Your task to perform on an android device: show emergency info Image 0: 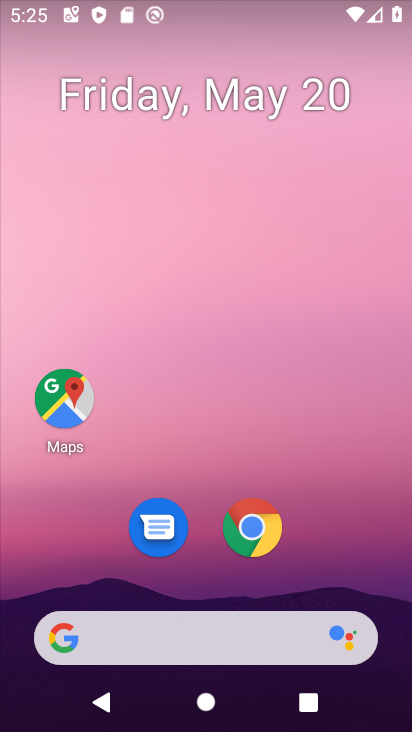
Step 0: drag from (341, 626) to (295, 70)
Your task to perform on an android device: show emergency info Image 1: 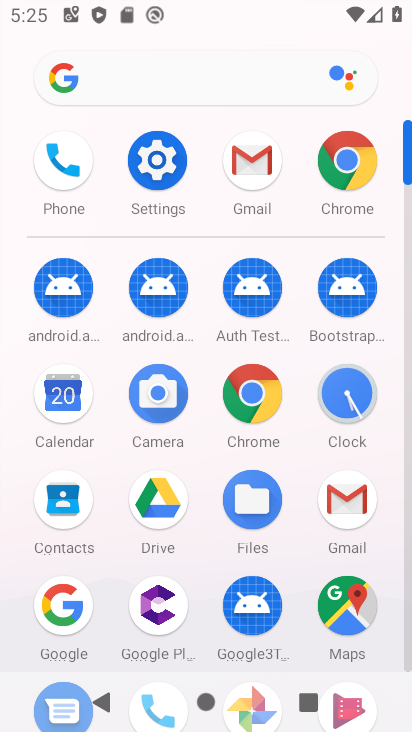
Step 1: click (143, 157)
Your task to perform on an android device: show emergency info Image 2: 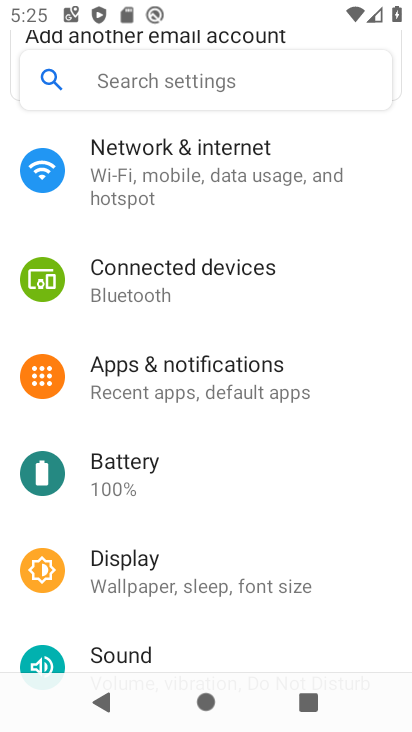
Step 2: drag from (282, 621) to (329, 40)
Your task to perform on an android device: show emergency info Image 3: 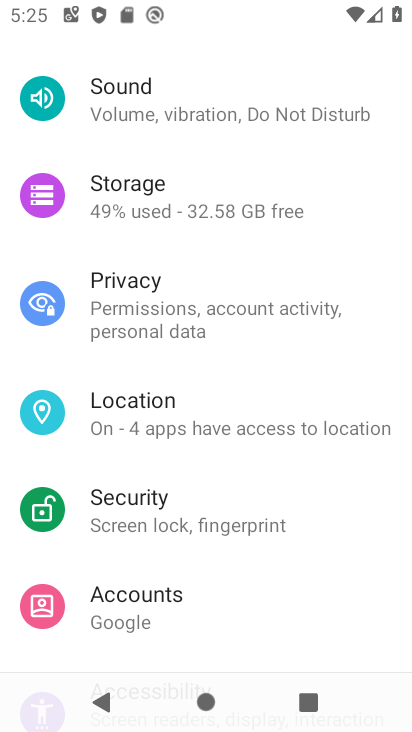
Step 3: drag from (202, 637) to (246, 40)
Your task to perform on an android device: show emergency info Image 4: 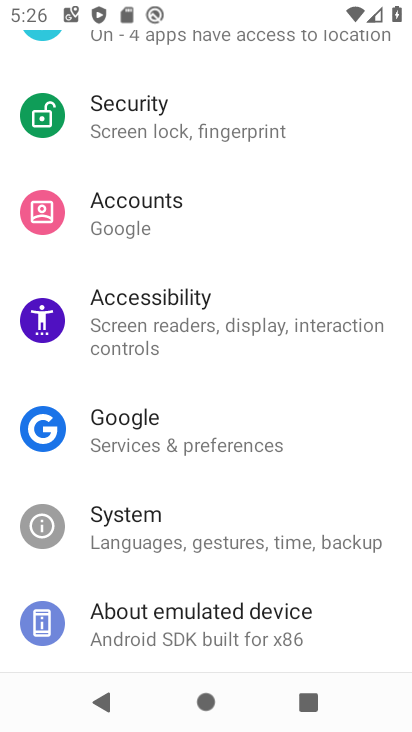
Step 4: click (240, 631)
Your task to perform on an android device: show emergency info Image 5: 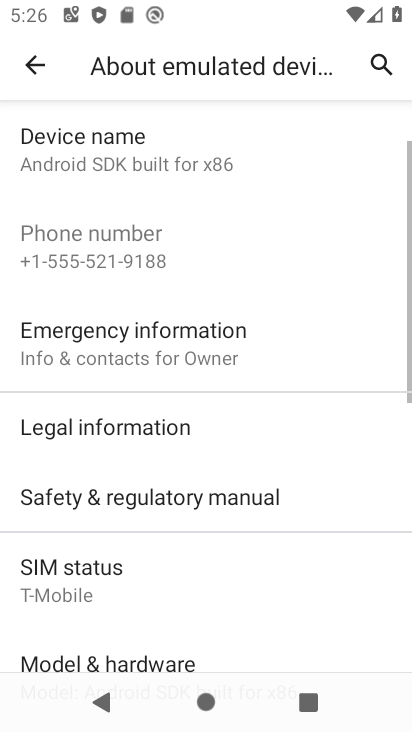
Step 5: drag from (242, 624) to (294, 155)
Your task to perform on an android device: show emergency info Image 6: 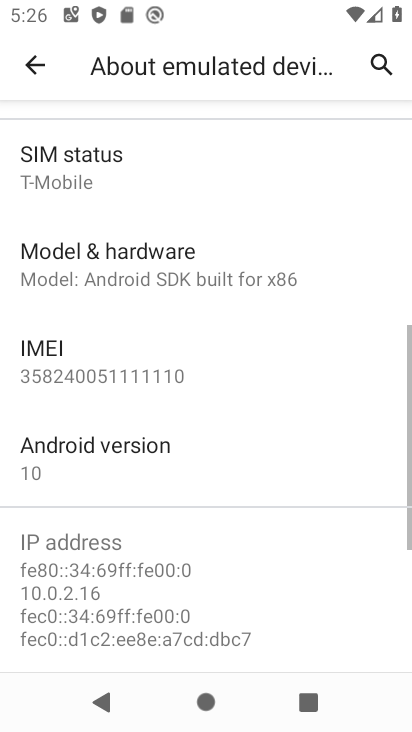
Step 6: drag from (244, 162) to (253, 727)
Your task to perform on an android device: show emergency info Image 7: 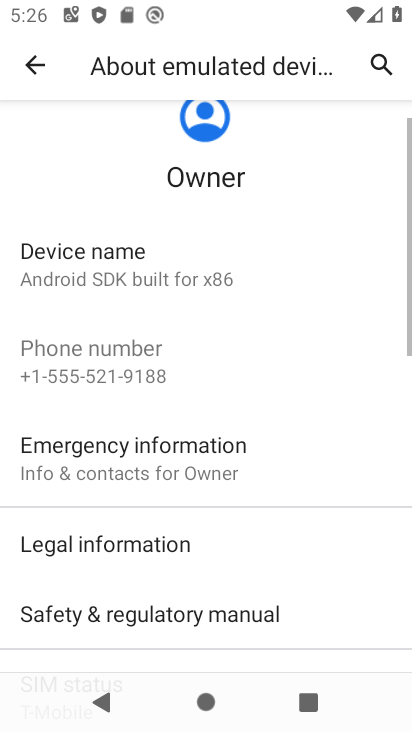
Step 7: click (175, 475)
Your task to perform on an android device: show emergency info Image 8: 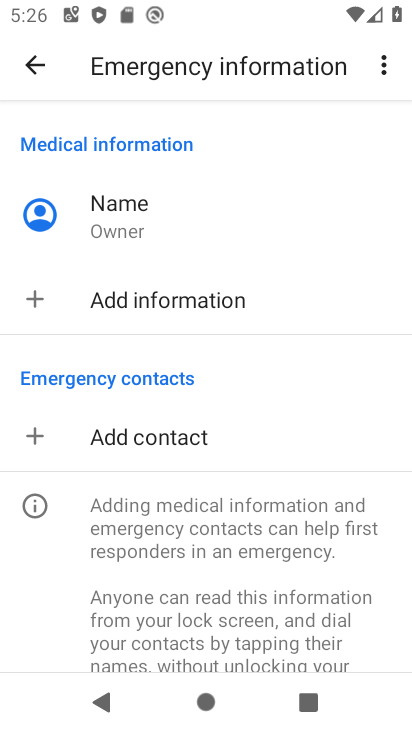
Step 8: task complete